Your task to perform on an android device: turn on showing notifications on the lock screen Image 0: 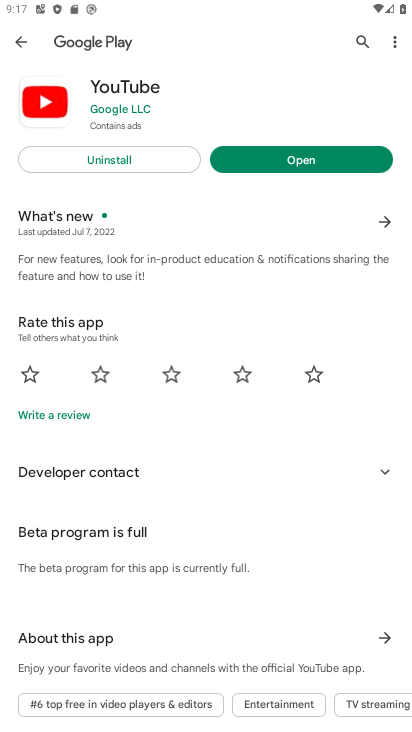
Step 0: press home button
Your task to perform on an android device: turn on showing notifications on the lock screen Image 1: 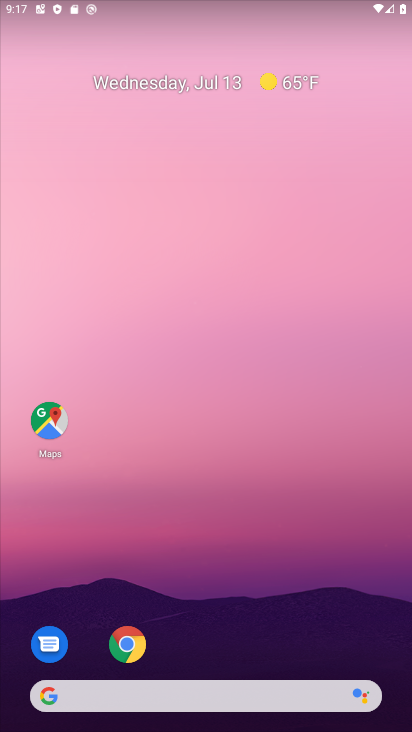
Step 1: drag from (312, 582) to (294, 71)
Your task to perform on an android device: turn on showing notifications on the lock screen Image 2: 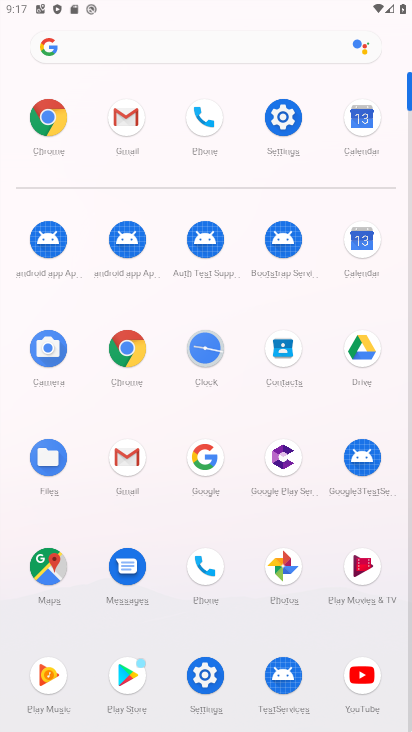
Step 2: click (272, 107)
Your task to perform on an android device: turn on showing notifications on the lock screen Image 3: 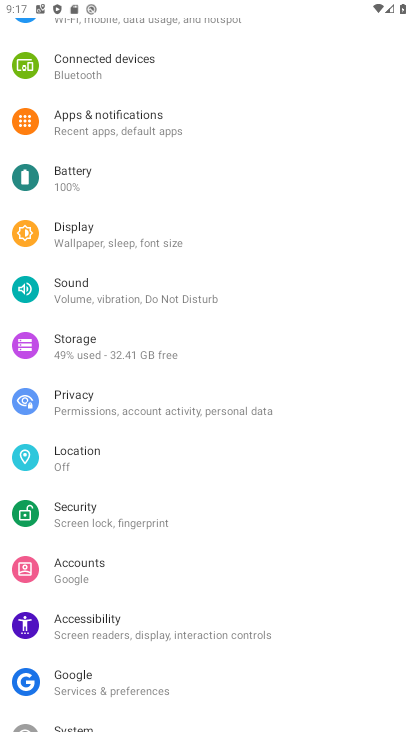
Step 3: click (134, 128)
Your task to perform on an android device: turn on showing notifications on the lock screen Image 4: 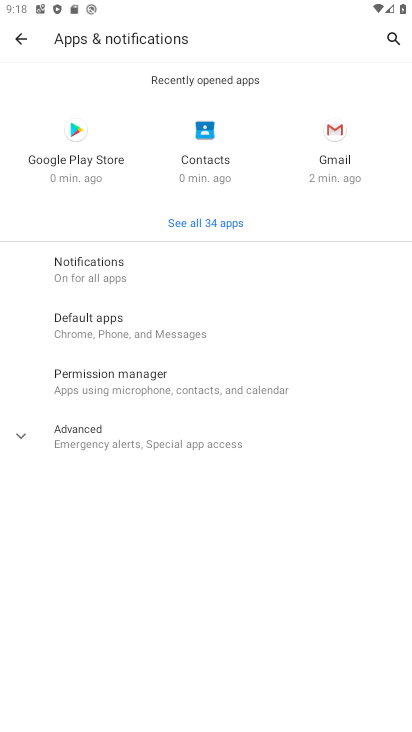
Step 4: click (61, 280)
Your task to perform on an android device: turn on showing notifications on the lock screen Image 5: 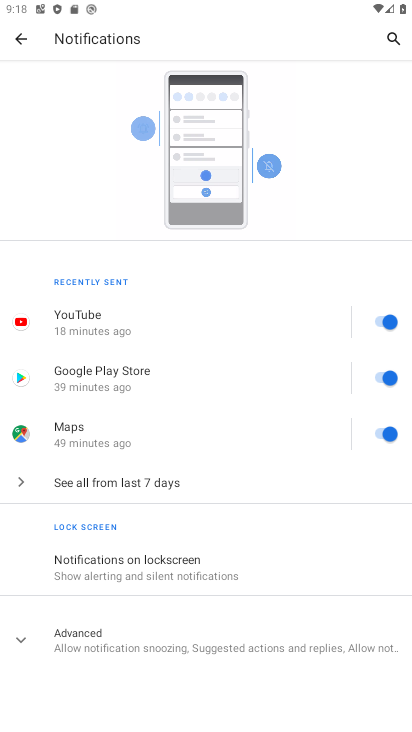
Step 5: click (106, 576)
Your task to perform on an android device: turn on showing notifications on the lock screen Image 6: 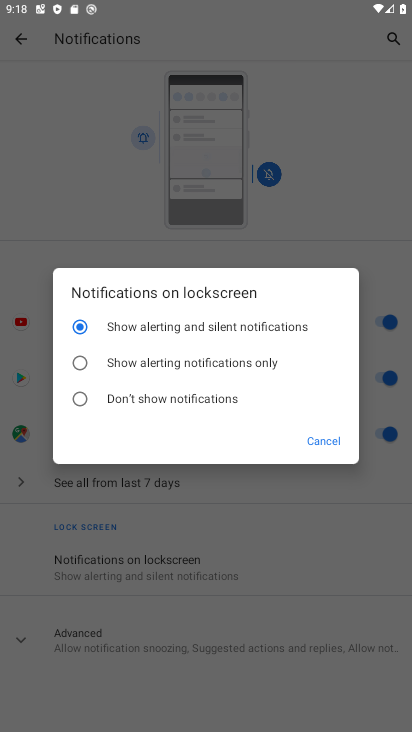
Step 6: click (85, 360)
Your task to perform on an android device: turn on showing notifications on the lock screen Image 7: 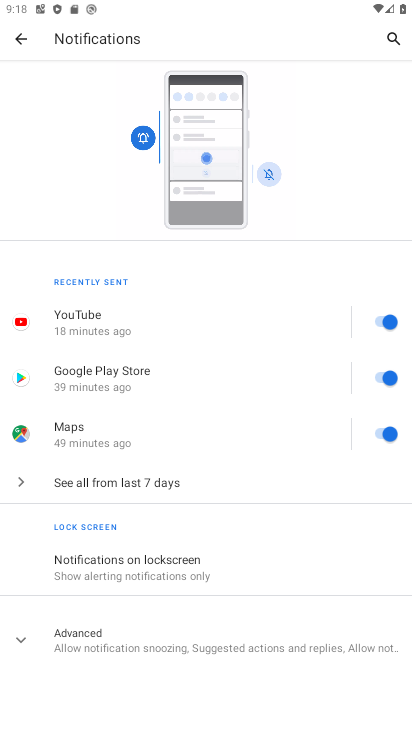
Step 7: task complete